Your task to perform on an android device: check battery use Image 0: 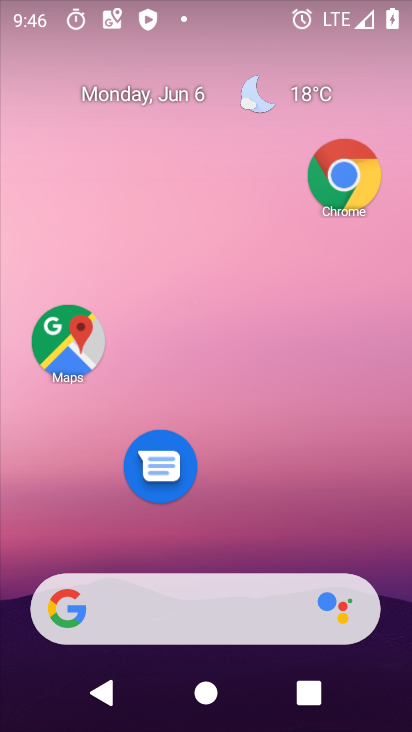
Step 0: drag from (211, 520) to (258, 244)
Your task to perform on an android device: check battery use Image 1: 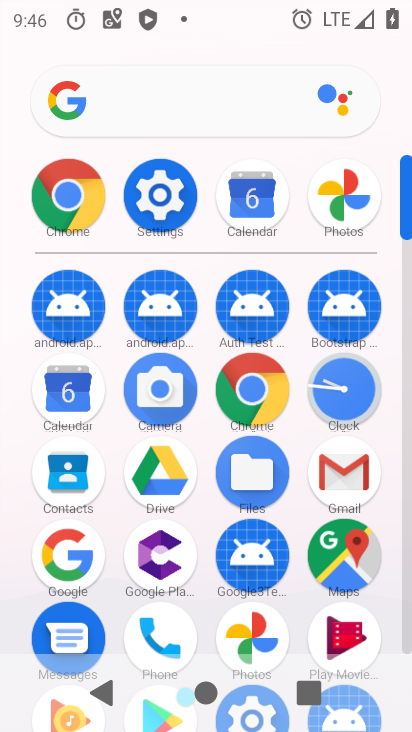
Step 1: click (166, 201)
Your task to perform on an android device: check battery use Image 2: 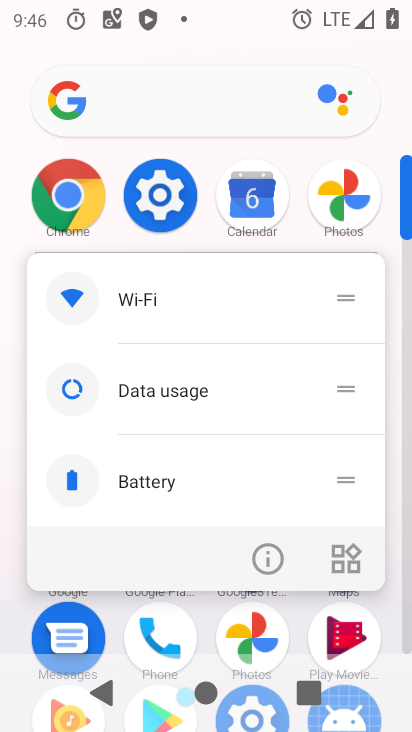
Step 2: click (206, 478)
Your task to perform on an android device: check battery use Image 3: 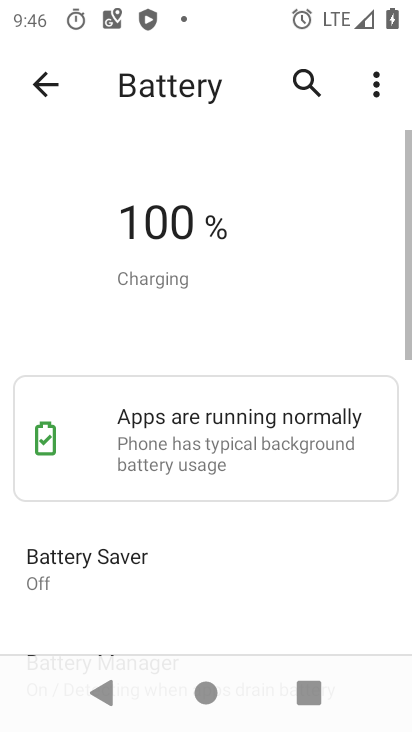
Step 3: drag from (230, 602) to (291, 118)
Your task to perform on an android device: check battery use Image 4: 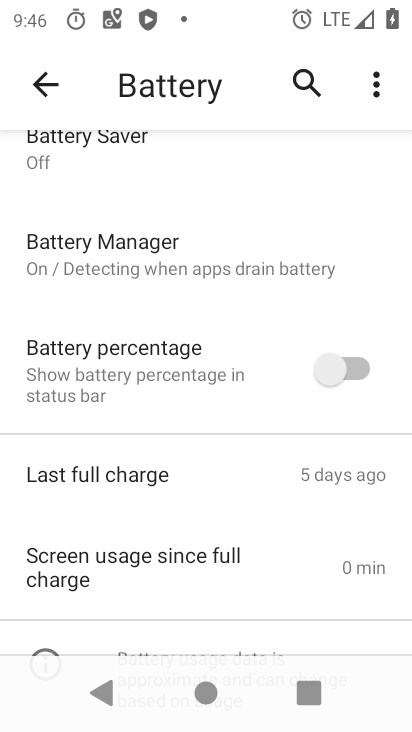
Step 4: click (366, 89)
Your task to perform on an android device: check battery use Image 5: 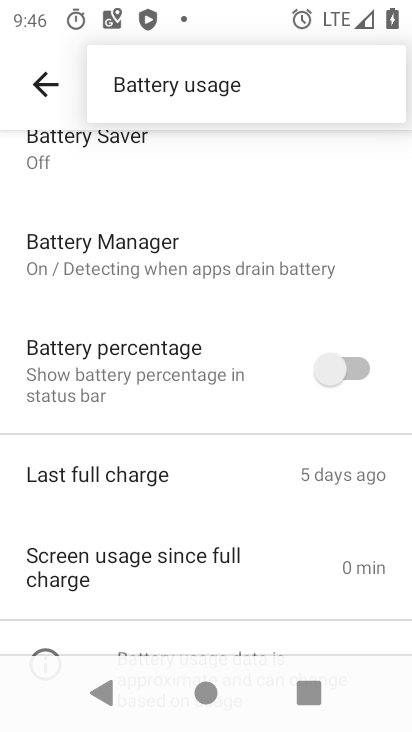
Step 5: click (211, 92)
Your task to perform on an android device: check battery use Image 6: 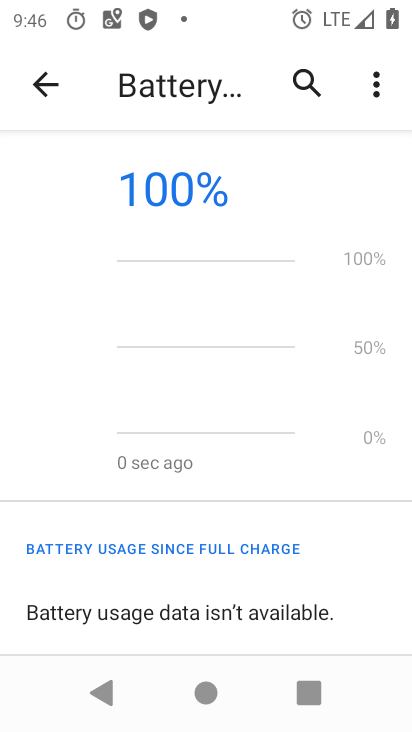
Step 6: drag from (275, 450) to (394, 160)
Your task to perform on an android device: check battery use Image 7: 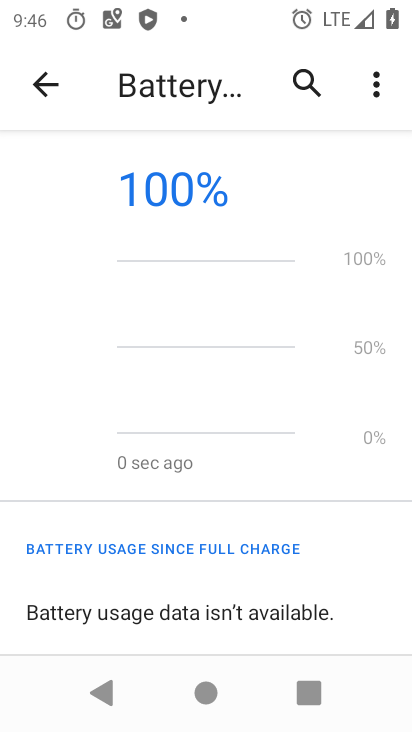
Step 7: drag from (231, 378) to (264, 66)
Your task to perform on an android device: check battery use Image 8: 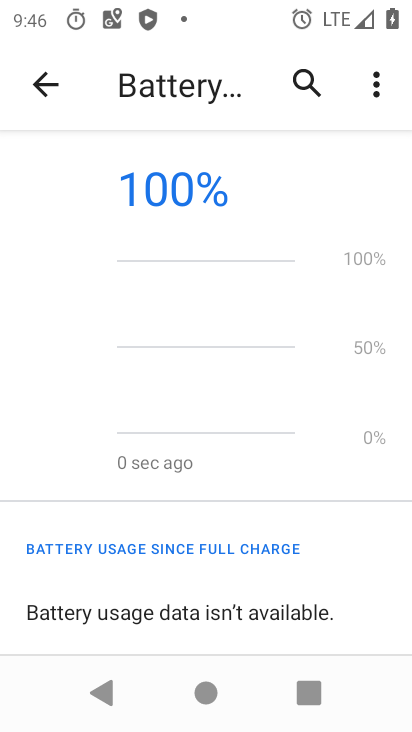
Step 8: click (372, 76)
Your task to perform on an android device: check battery use Image 9: 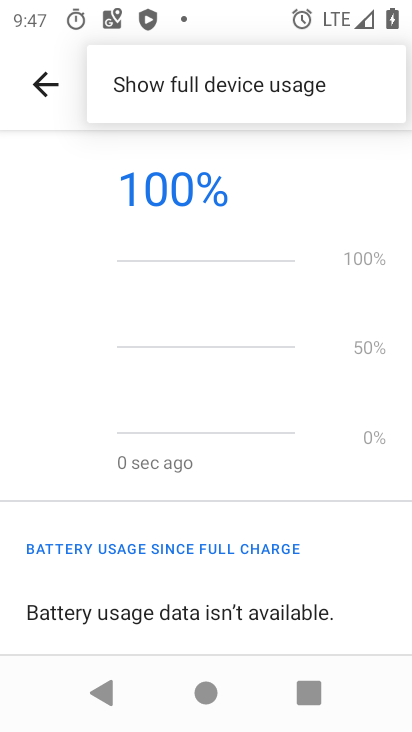
Step 9: task complete